Your task to perform on an android device: Go to Amazon Image 0: 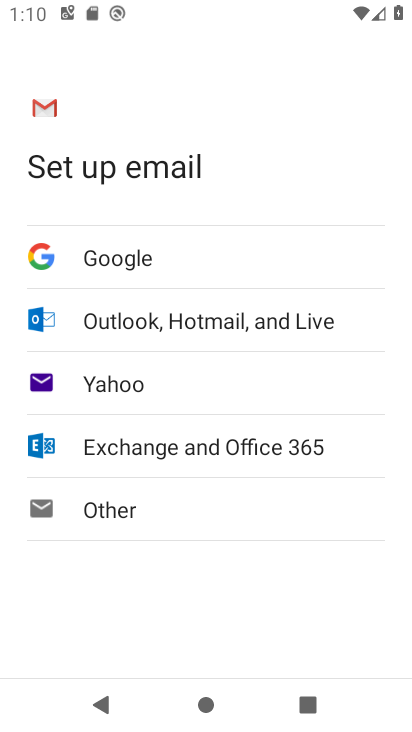
Step 0: press home button
Your task to perform on an android device: Go to Amazon Image 1: 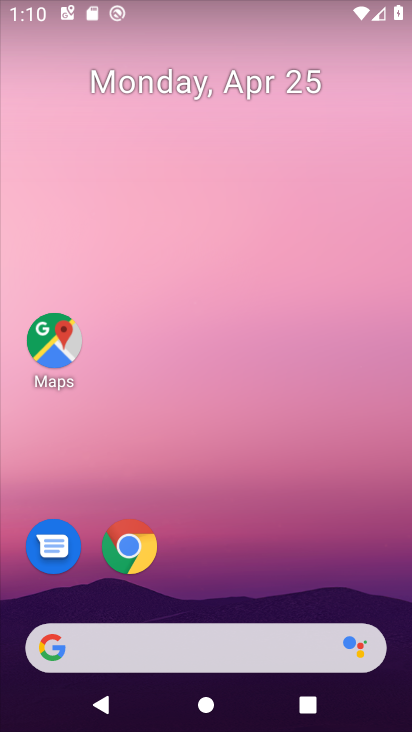
Step 1: drag from (342, 583) to (354, 148)
Your task to perform on an android device: Go to Amazon Image 2: 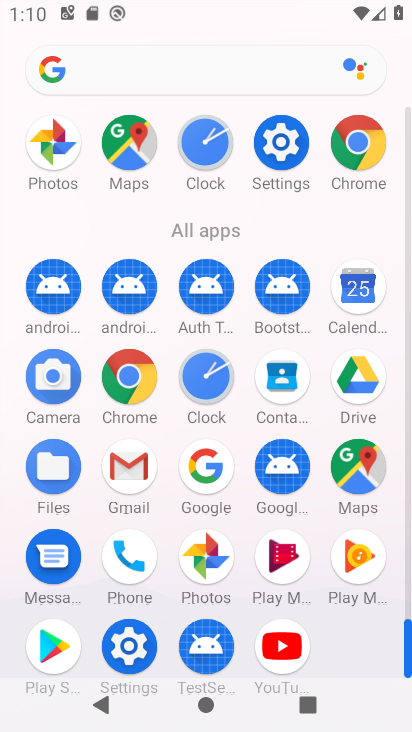
Step 2: click (372, 156)
Your task to perform on an android device: Go to Amazon Image 3: 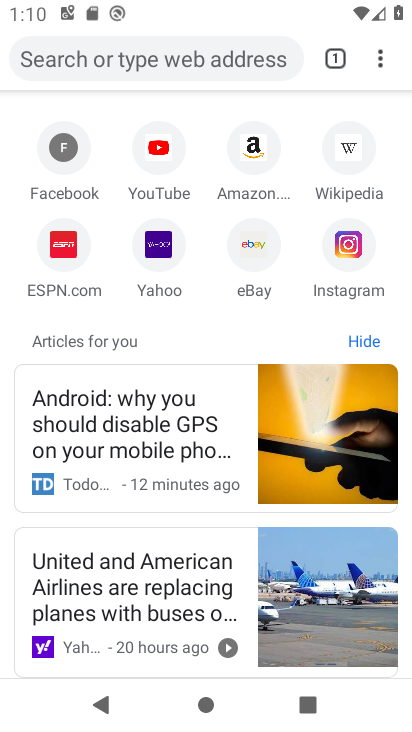
Step 3: click (260, 150)
Your task to perform on an android device: Go to Amazon Image 4: 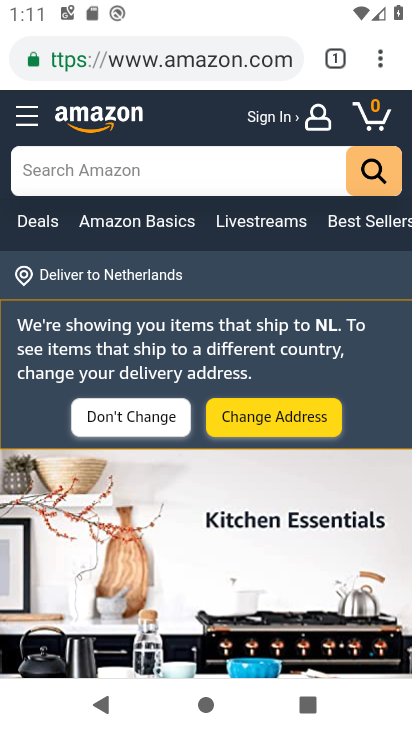
Step 4: task complete